Your task to perform on an android device: Is it going to rain tomorrow? Image 0: 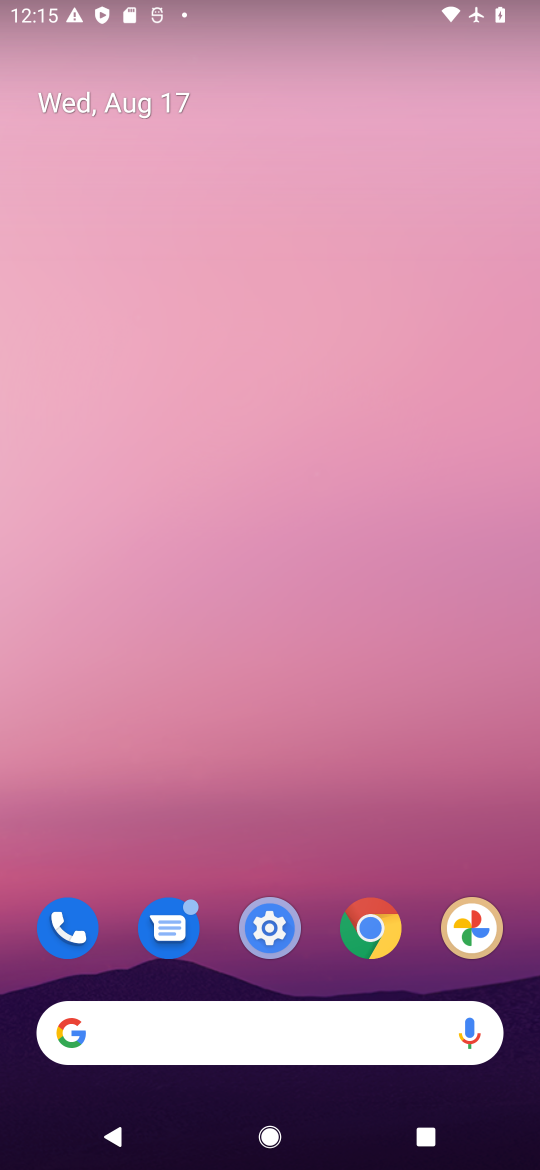
Step 0: drag from (326, 855) to (292, 171)
Your task to perform on an android device: Is it going to rain tomorrow? Image 1: 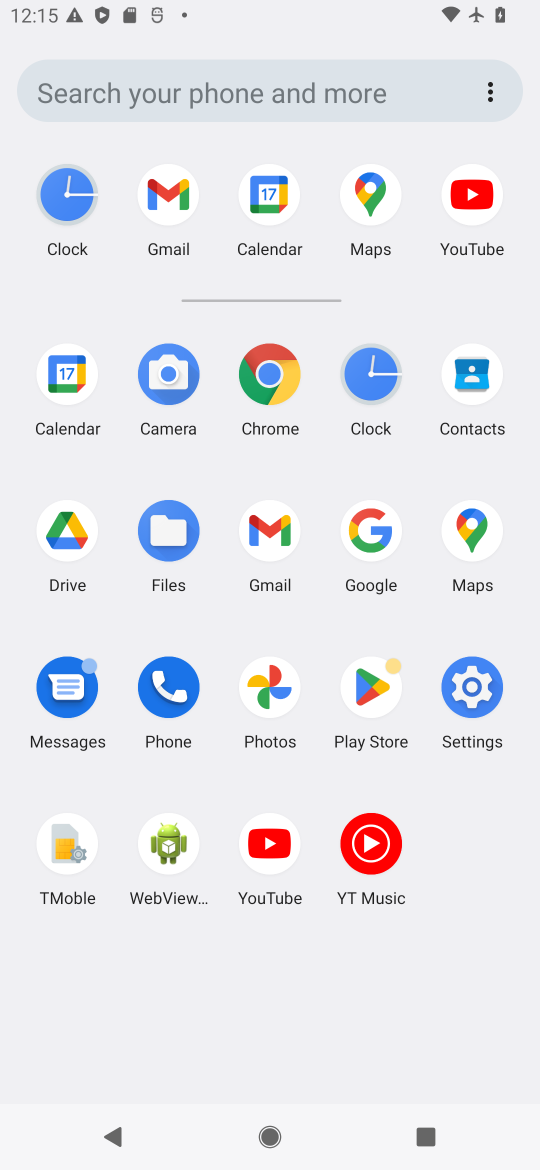
Step 1: click (358, 555)
Your task to perform on an android device: Is it going to rain tomorrow? Image 2: 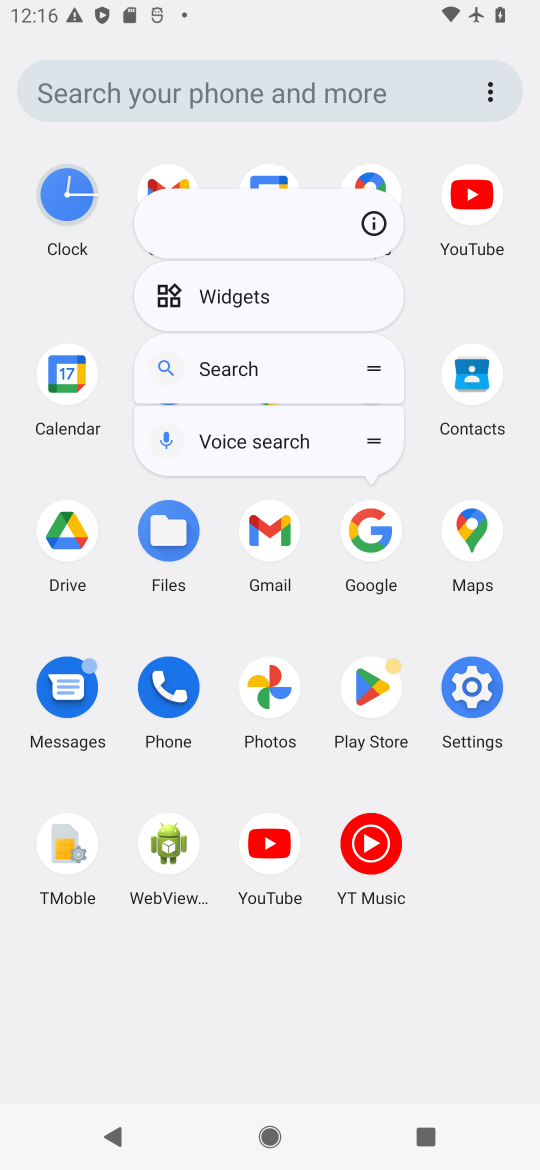
Step 2: click (374, 555)
Your task to perform on an android device: Is it going to rain tomorrow? Image 3: 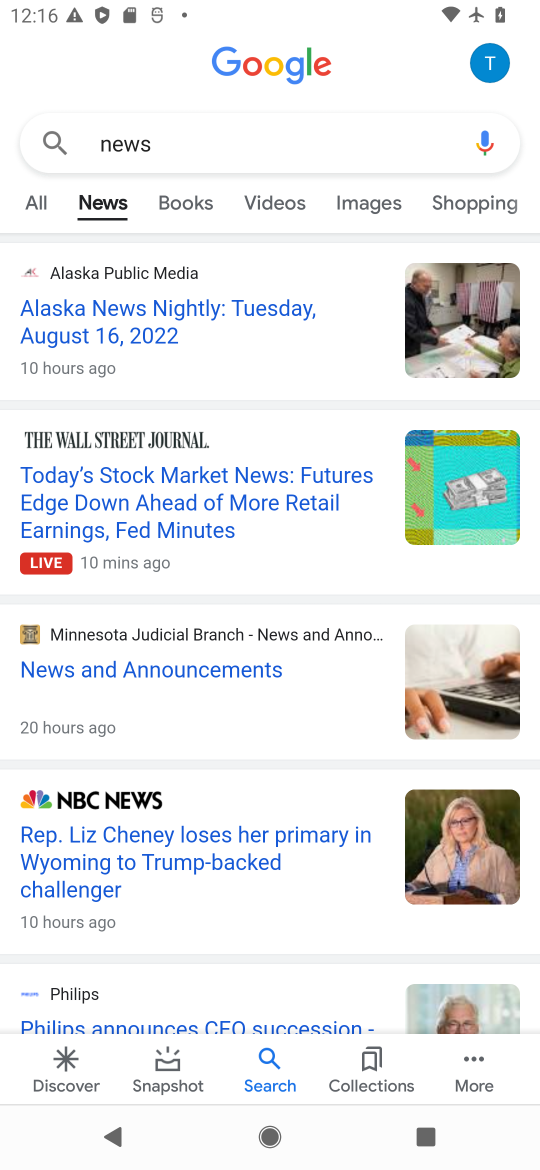
Step 3: click (265, 147)
Your task to perform on an android device: Is it going to rain tomorrow? Image 4: 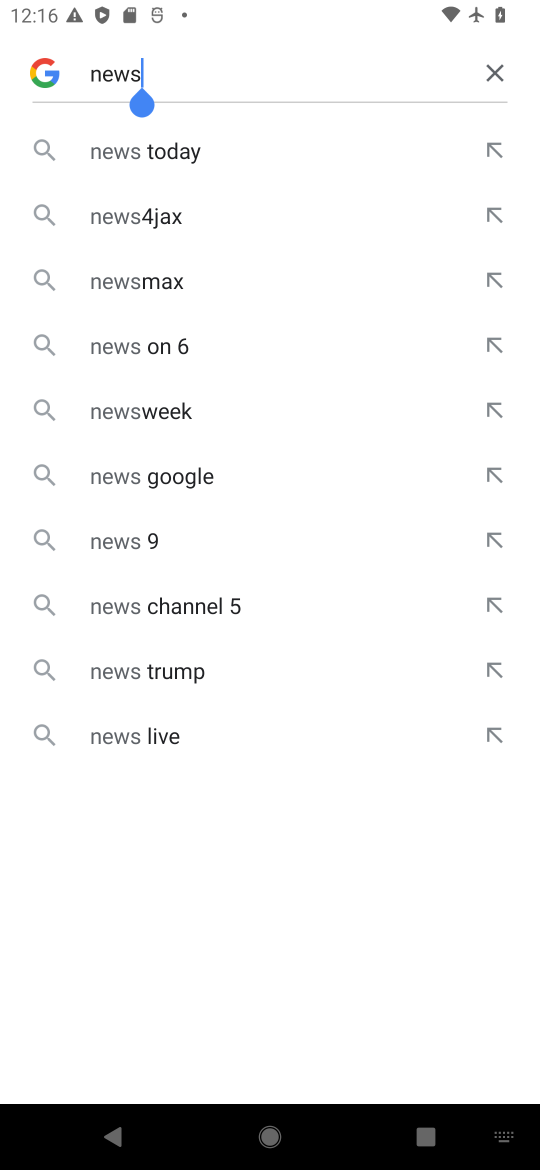
Step 4: click (493, 76)
Your task to perform on an android device: Is it going to rain tomorrow? Image 5: 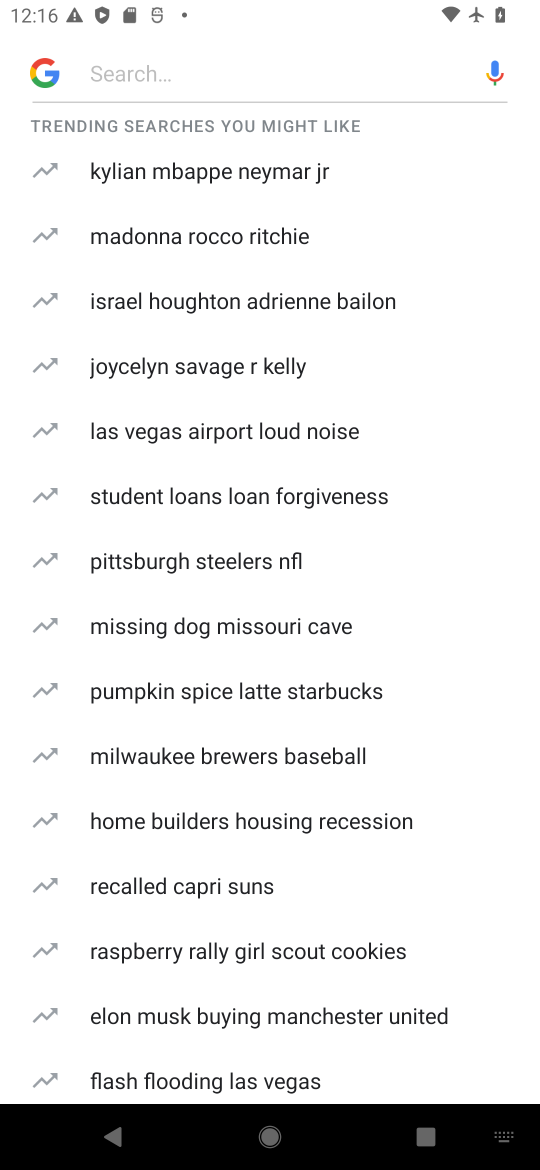
Step 5: type "weather"
Your task to perform on an android device: Is it going to rain tomorrow? Image 6: 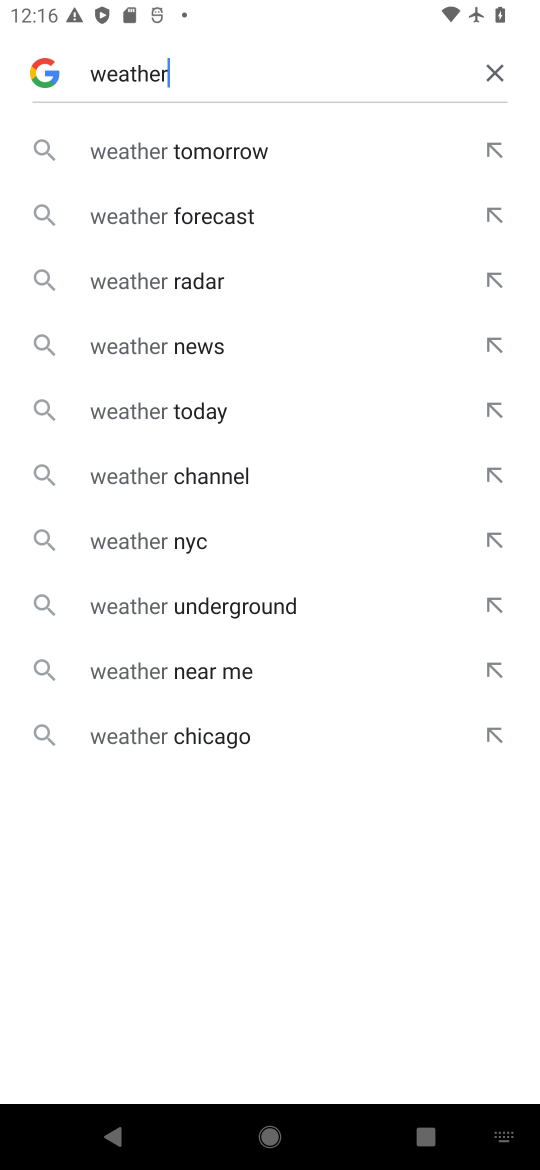
Step 6: click (193, 155)
Your task to perform on an android device: Is it going to rain tomorrow? Image 7: 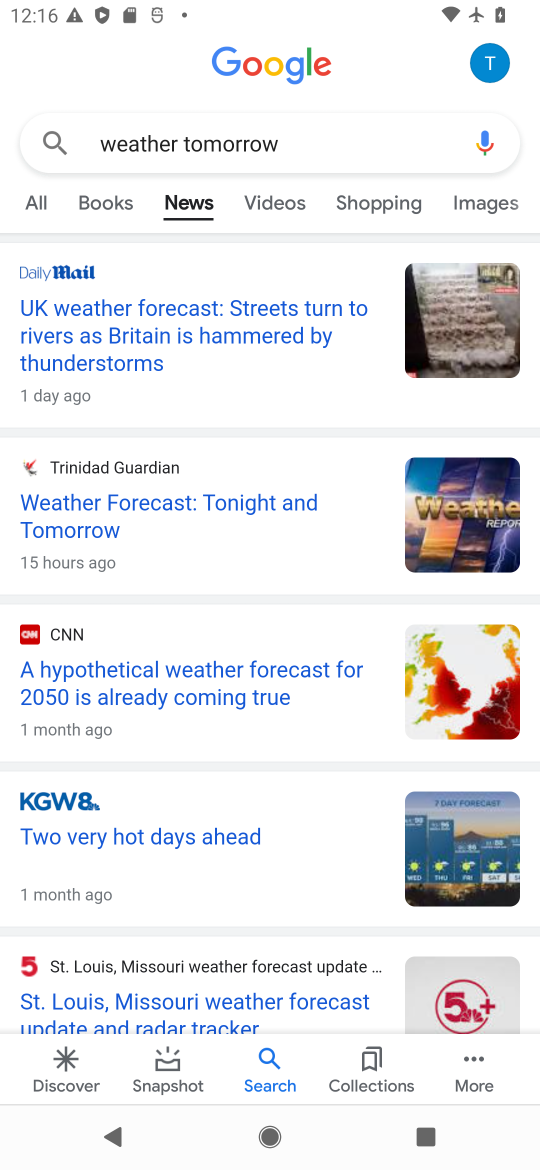
Step 7: click (21, 210)
Your task to perform on an android device: Is it going to rain tomorrow? Image 8: 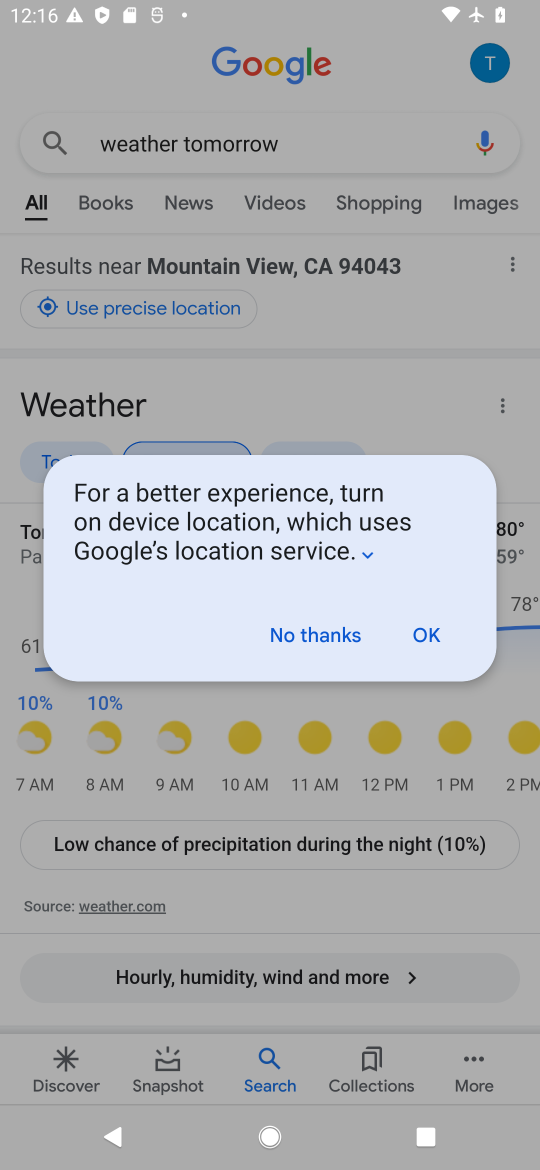
Step 8: click (426, 640)
Your task to perform on an android device: Is it going to rain tomorrow? Image 9: 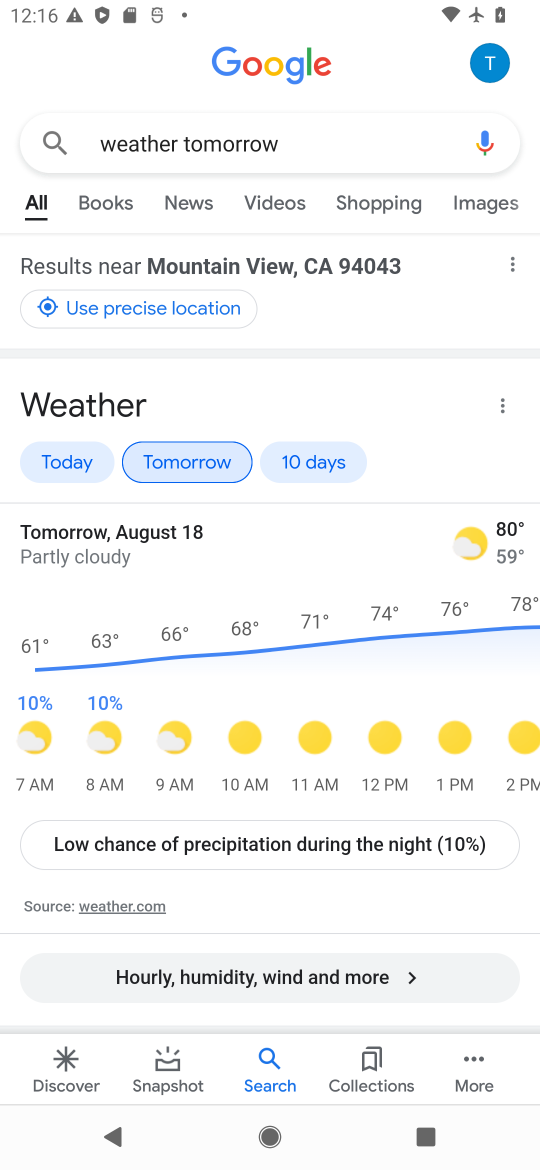
Step 9: task complete